Your task to perform on an android device: toggle notification dots Image 0: 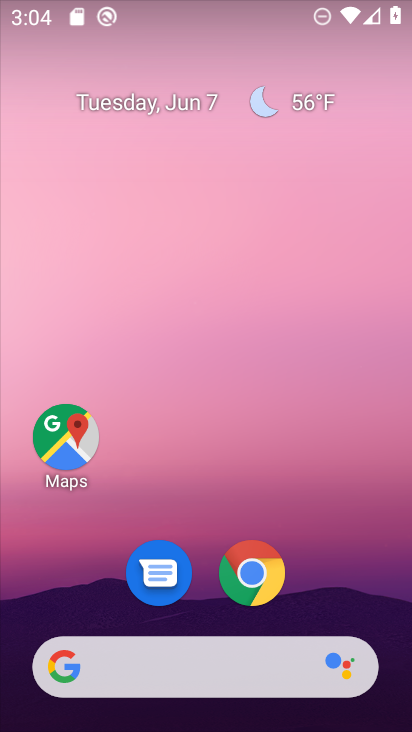
Step 0: drag from (351, 567) to (394, 17)
Your task to perform on an android device: toggle notification dots Image 1: 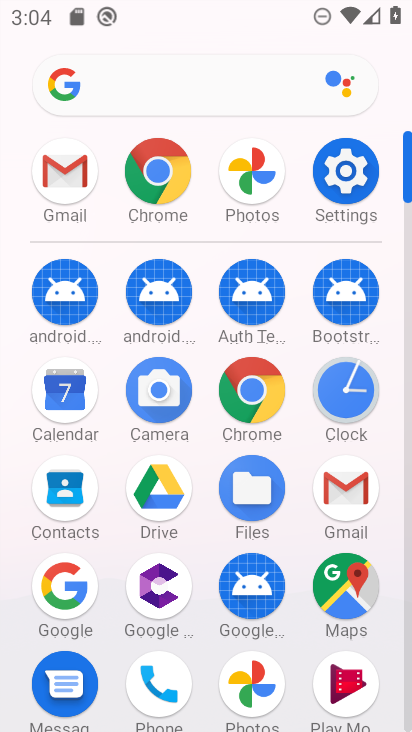
Step 1: click (340, 174)
Your task to perform on an android device: toggle notification dots Image 2: 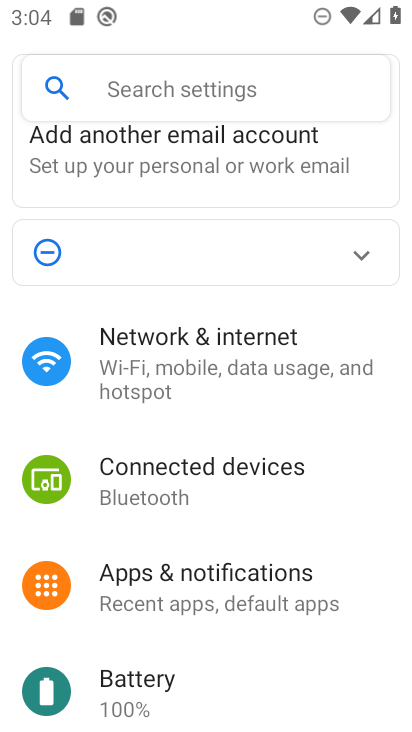
Step 2: click (217, 551)
Your task to perform on an android device: toggle notification dots Image 3: 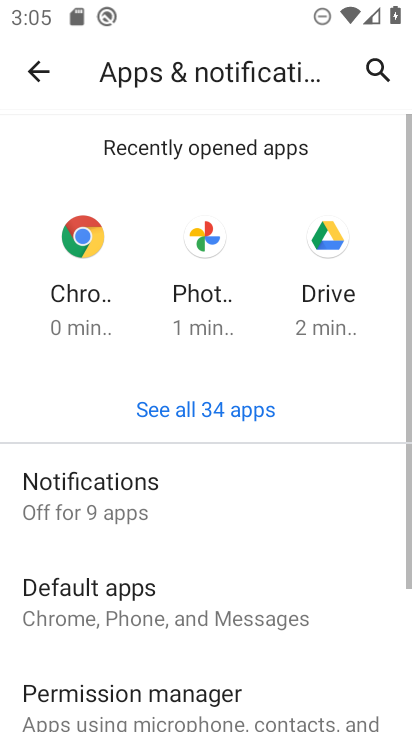
Step 3: click (151, 500)
Your task to perform on an android device: toggle notification dots Image 4: 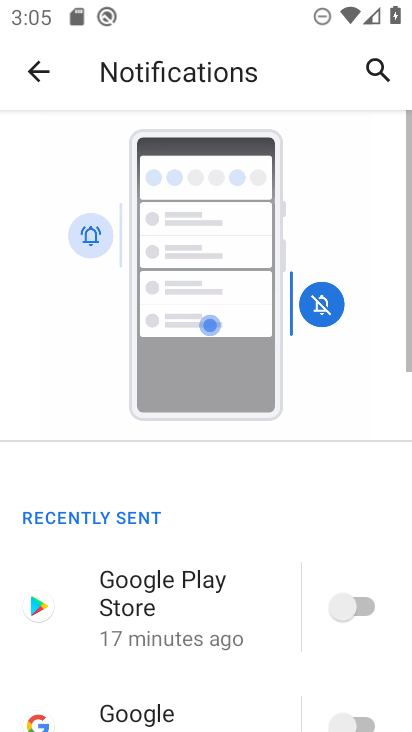
Step 4: drag from (205, 612) to (244, 9)
Your task to perform on an android device: toggle notification dots Image 5: 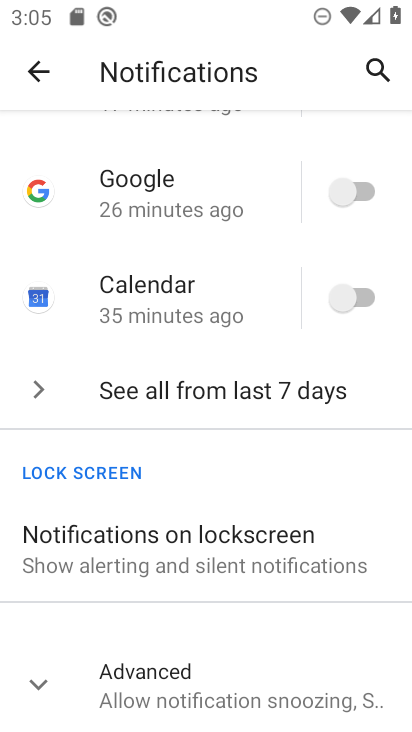
Step 5: click (204, 666)
Your task to perform on an android device: toggle notification dots Image 6: 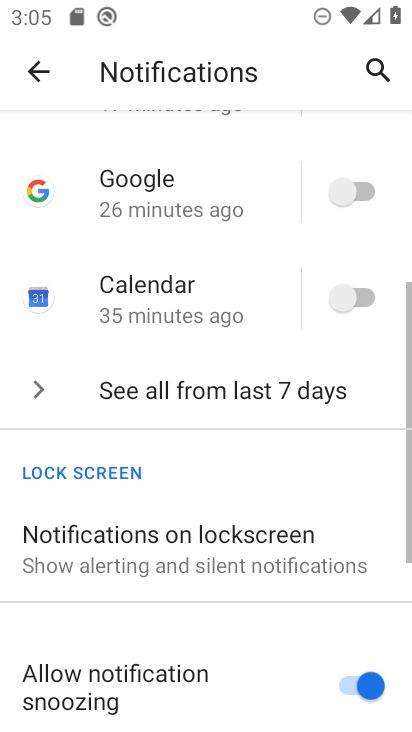
Step 6: drag from (195, 654) to (174, 107)
Your task to perform on an android device: toggle notification dots Image 7: 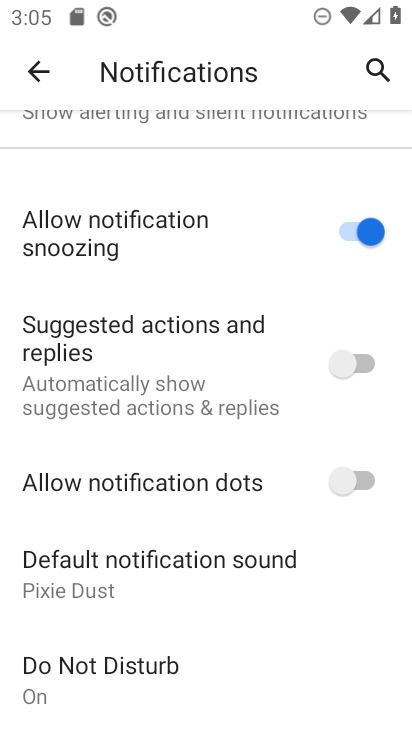
Step 7: click (355, 476)
Your task to perform on an android device: toggle notification dots Image 8: 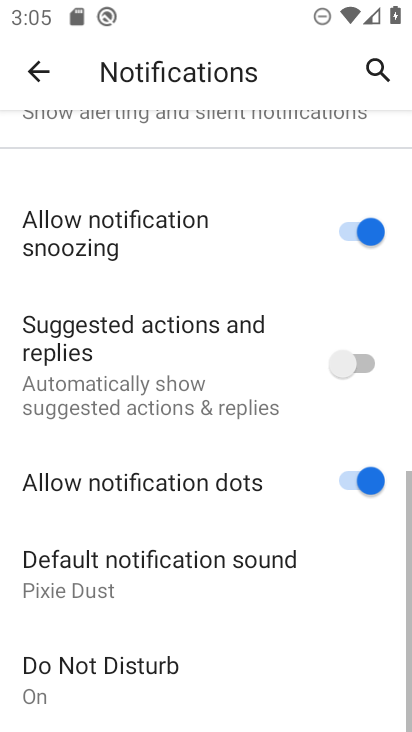
Step 8: task complete